Your task to perform on an android device: change notifications settings Image 0: 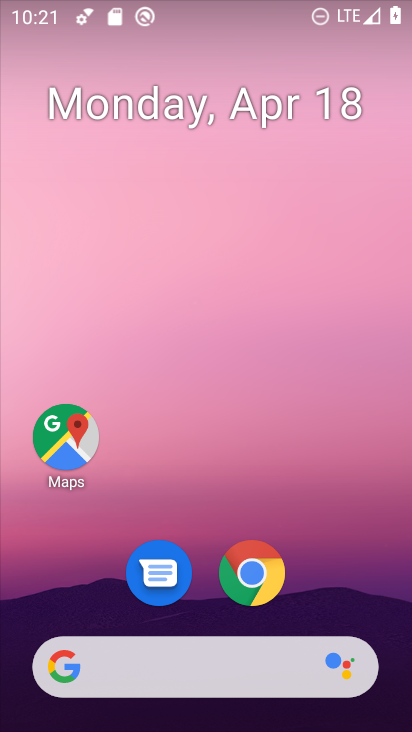
Step 0: drag from (345, 591) to (196, 250)
Your task to perform on an android device: change notifications settings Image 1: 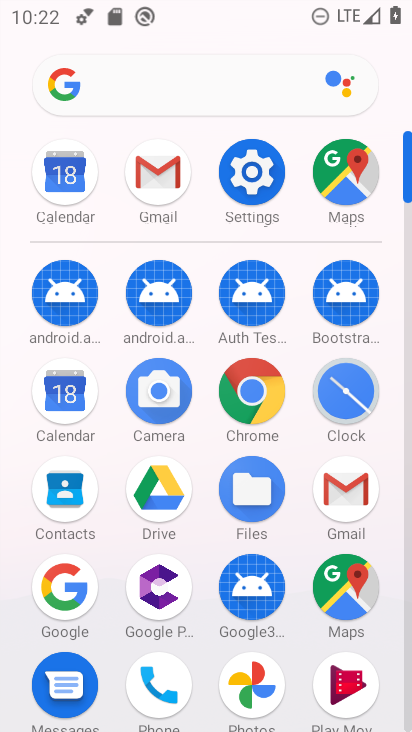
Step 1: click (257, 181)
Your task to perform on an android device: change notifications settings Image 2: 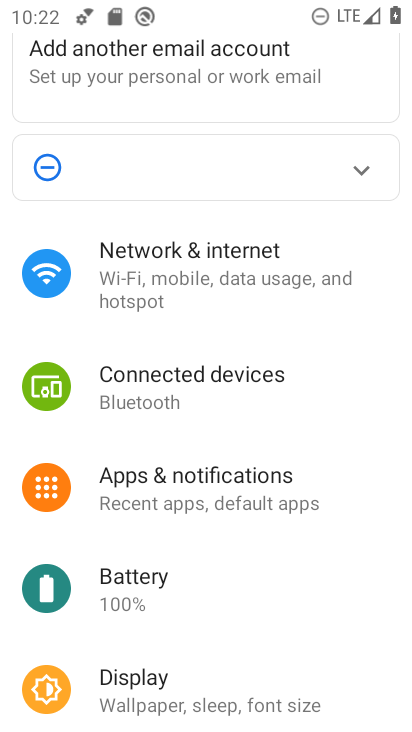
Step 2: click (279, 499)
Your task to perform on an android device: change notifications settings Image 3: 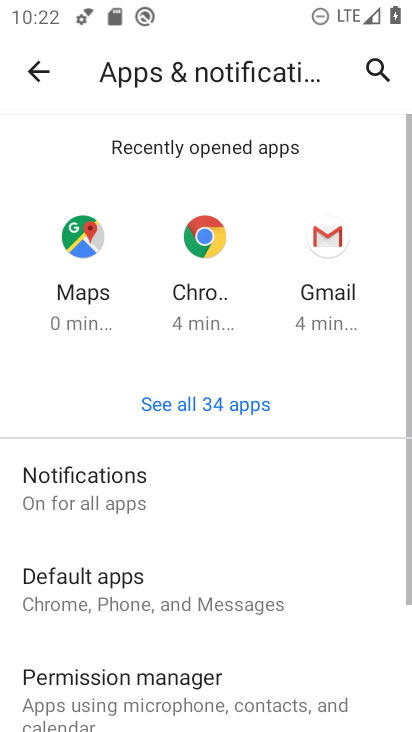
Step 3: click (259, 493)
Your task to perform on an android device: change notifications settings Image 4: 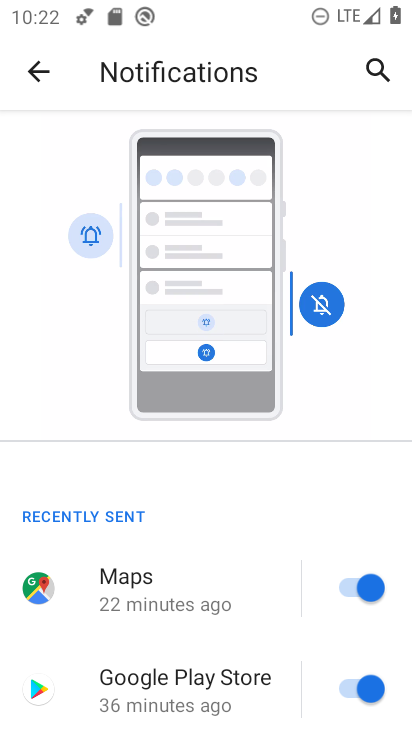
Step 4: task complete